Your task to perform on an android device: Search for sushi restaurants on Maps Image 0: 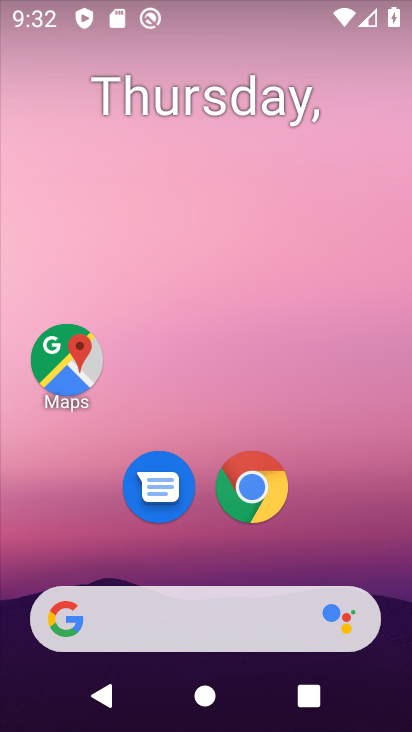
Step 0: click (81, 343)
Your task to perform on an android device: Search for sushi restaurants on Maps Image 1: 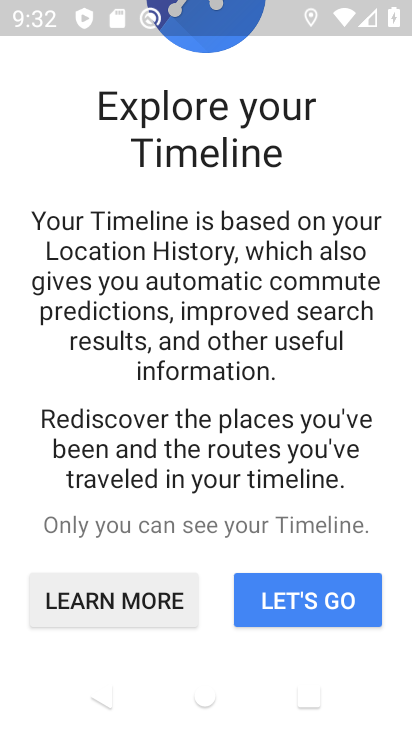
Step 1: press back button
Your task to perform on an android device: Search for sushi restaurants on Maps Image 2: 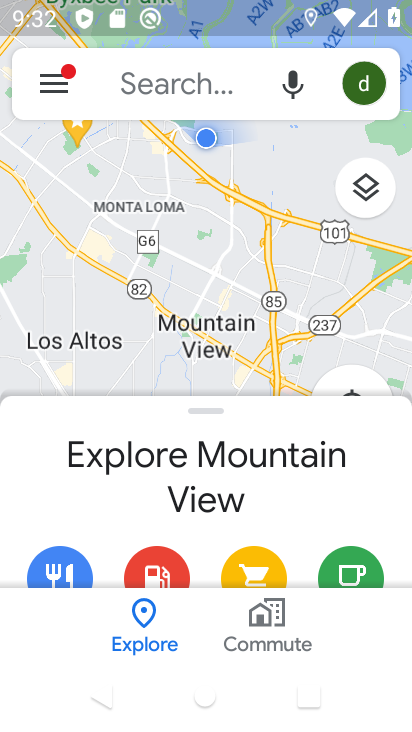
Step 2: click (216, 90)
Your task to perform on an android device: Search for sushi restaurants on Maps Image 3: 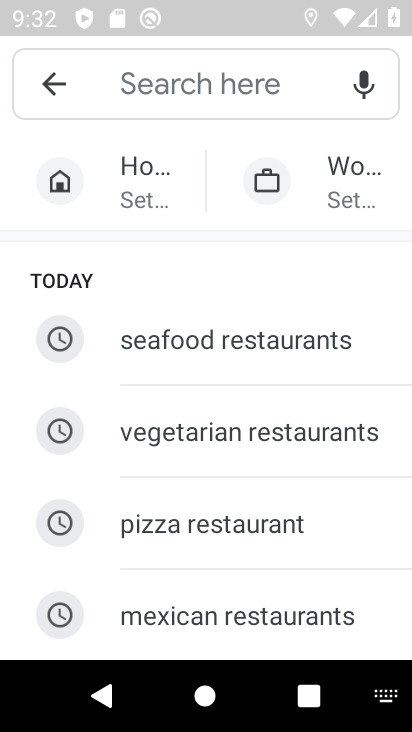
Step 3: drag from (194, 558) to (125, 178)
Your task to perform on an android device: Search for sushi restaurants on Maps Image 4: 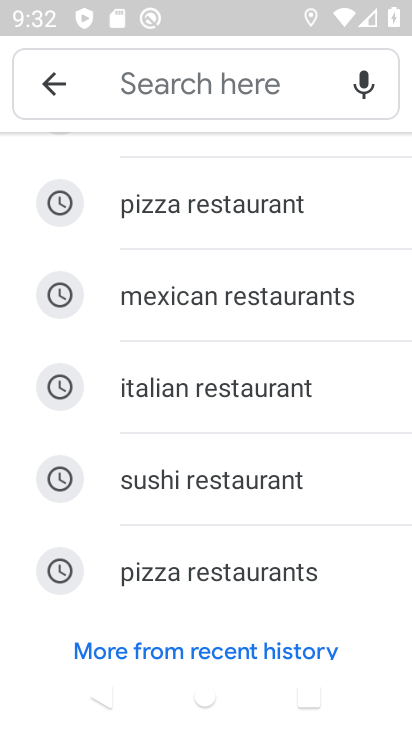
Step 4: click (187, 488)
Your task to perform on an android device: Search for sushi restaurants on Maps Image 5: 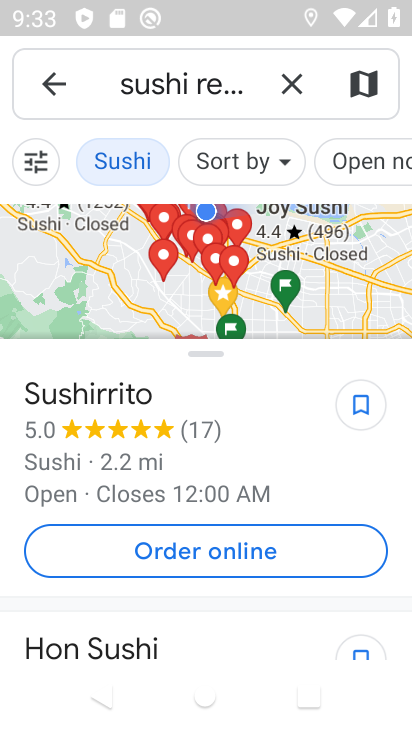
Step 5: task complete